Your task to perform on an android device: Open settings on Google Maps Image 0: 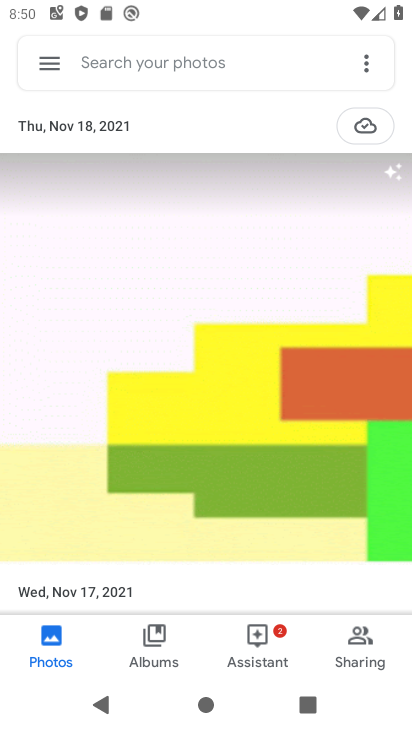
Step 0: press home button
Your task to perform on an android device: Open settings on Google Maps Image 1: 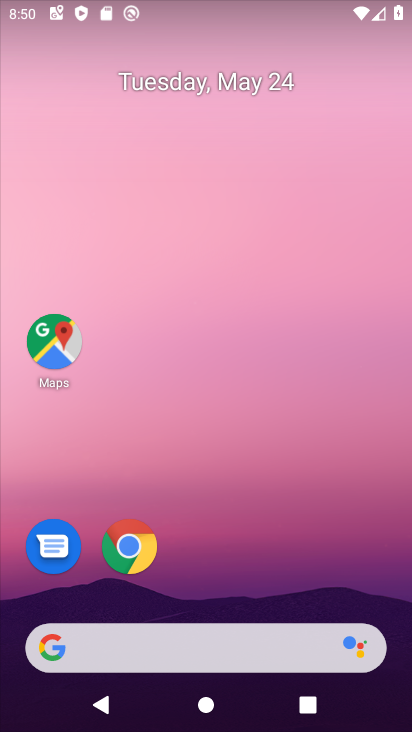
Step 1: click (55, 343)
Your task to perform on an android device: Open settings on Google Maps Image 2: 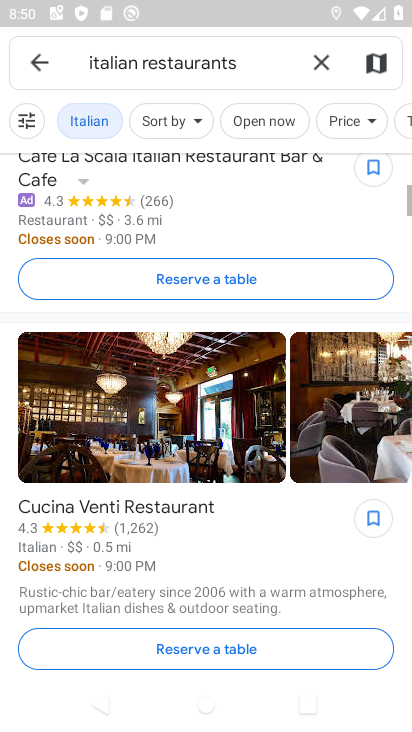
Step 2: click (327, 58)
Your task to perform on an android device: Open settings on Google Maps Image 3: 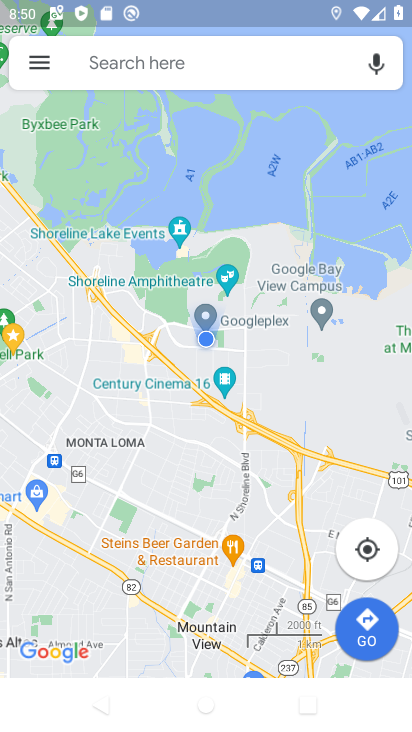
Step 3: click (31, 63)
Your task to perform on an android device: Open settings on Google Maps Image 4: 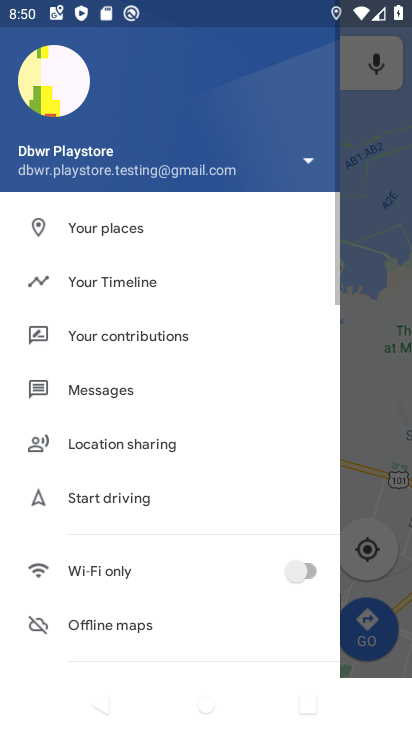
Step 4: drag from (129, 623) to (126, 204)
Your task to perform on an android device: Open settings on Google Maps Image 5: 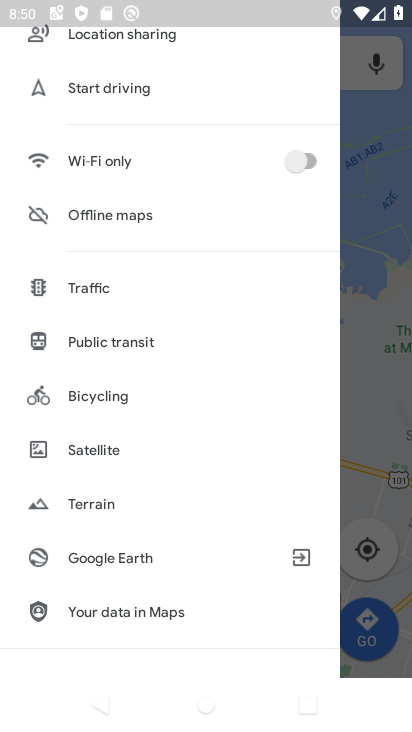
Step 5: drag from (89, 628) to (89, 329)
Your task to perform on an android device: Open settings on Google Maps Image 6: 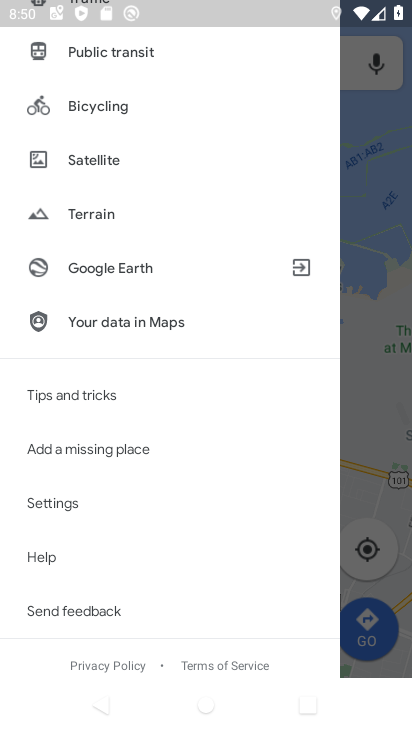
Step 6: click (77, 495)
Your task to perform on an android device: Open settings on Google Maps Image 7: 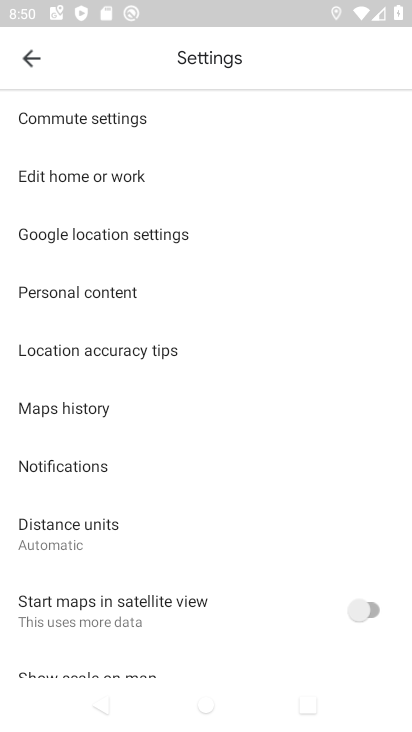
Step 7: task complete